Your task to perform on an android device: Go to location settings Image 0: 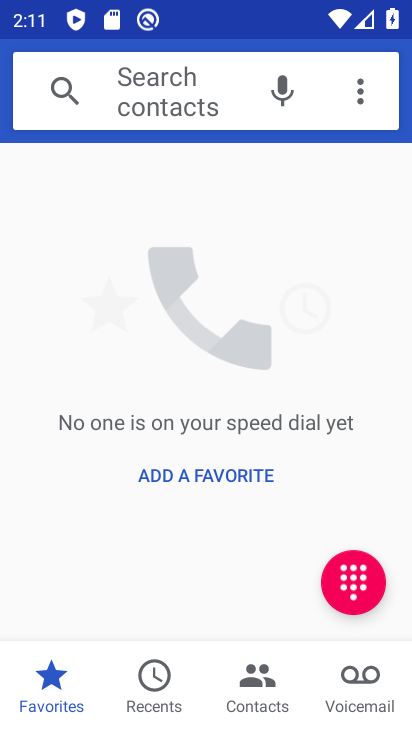
Step 0: press back button
Your task to perform on an android device: Go to location settings Image 1: 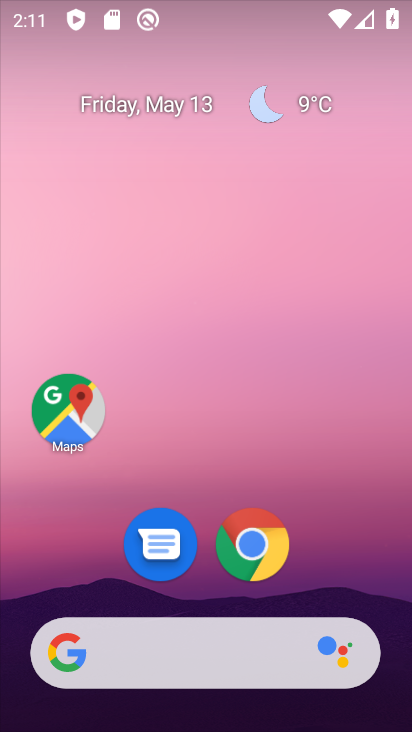
Step 1: drag from (353, 458) to (408, 236)
Your task to perform on an android device: Go to location settings Image 2: 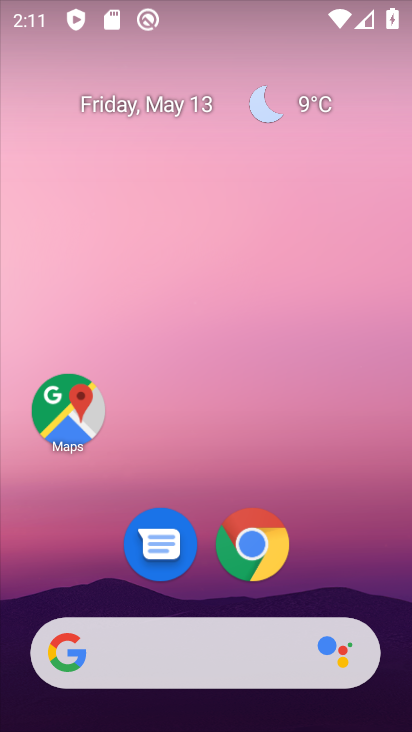
Step 2: drag from (197, 631) to (302, 136)
Your task to perform on an android device: Go to location settings Image 3: 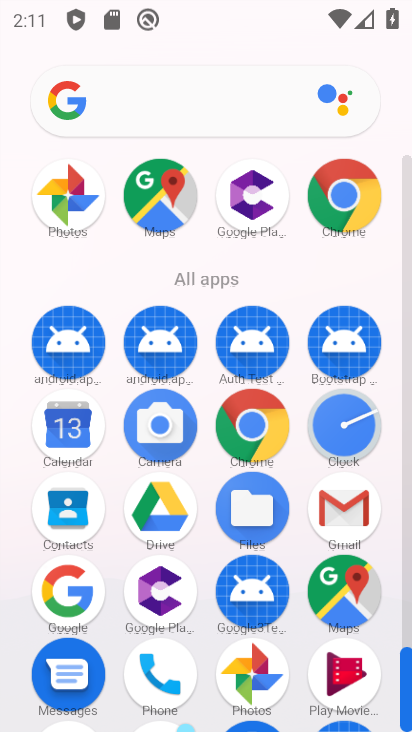
Step 3: drag from (161, 678) to (243, 417)
Your task to perform on an android device: Go to location settings Image 4: 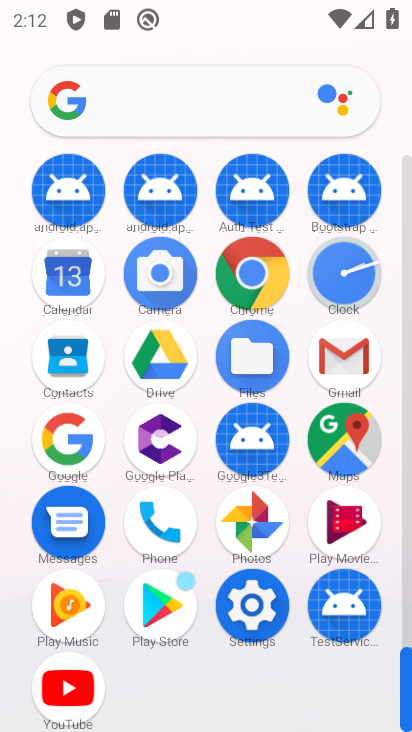
Step 4: click (257, 605)
Your task to perform on an android device: Go to location settings Image 5: 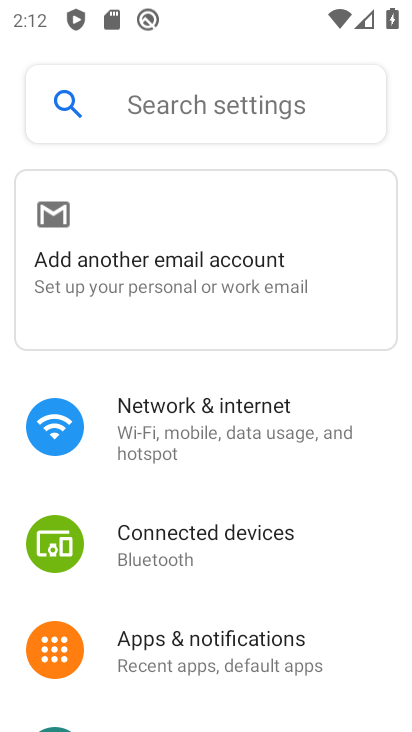
Step 5: drag from (242, 664) to (347, 349)
Your task to perform on an android device: Go to location settings Image 6: 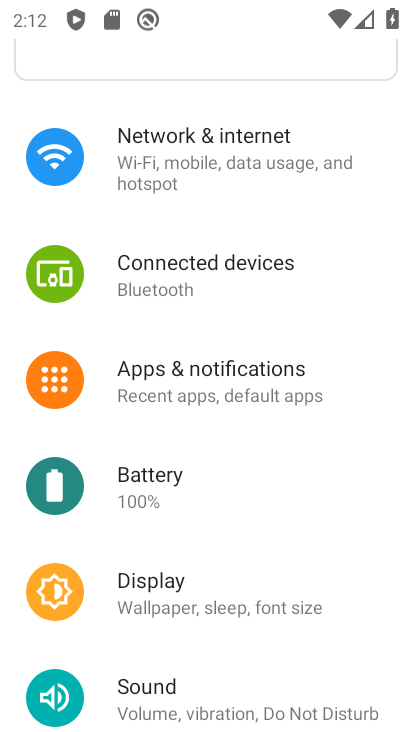
Step 6: drag from (244, 649) to (340, 355)
Your task to perform on an android device: Go to location settings Image 7: 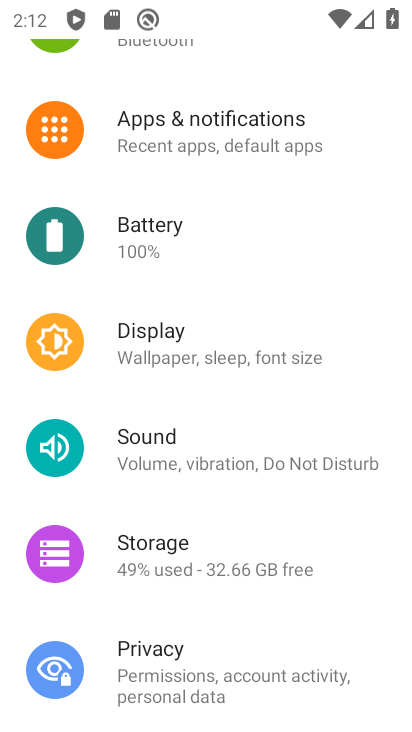
Step 7: drag from (204, 682) to (294, 383)
Your task to perform on an android device: Go to location settings Image 8: 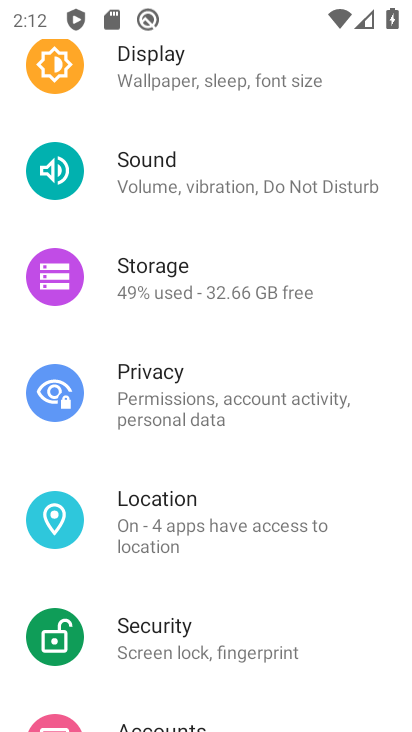
Step 8: click (162, 506)
Your task to perform on an android device: Go to location settings Image 9: 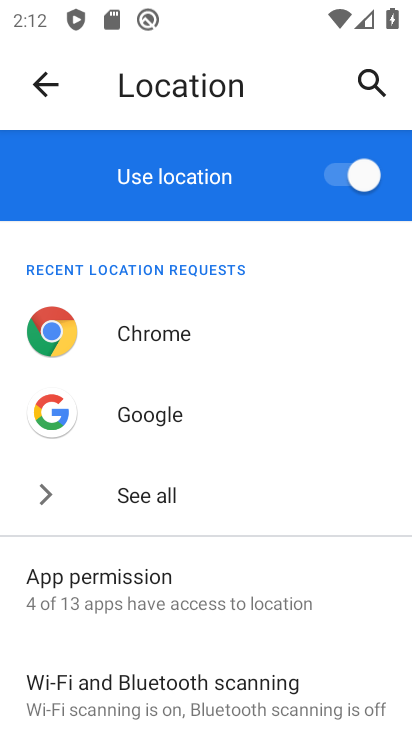
Step 9: task complete